Your task to perform on an android device: Open calendar and show me the third week of next month Image 0: 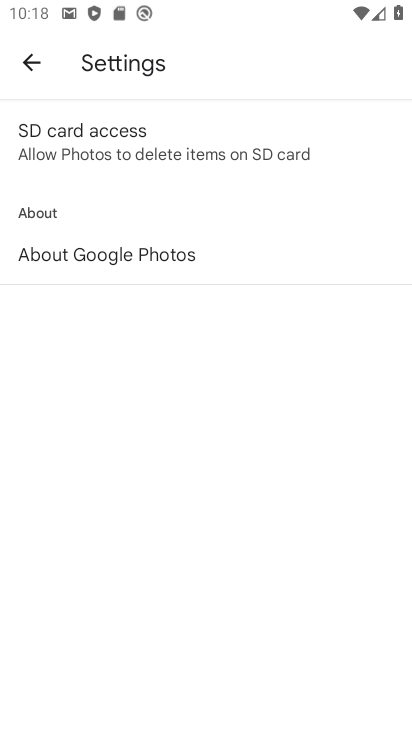
Step 0: press back button
Your task to perform on an android device: Open calendar and show me the third week of next month Image 1: 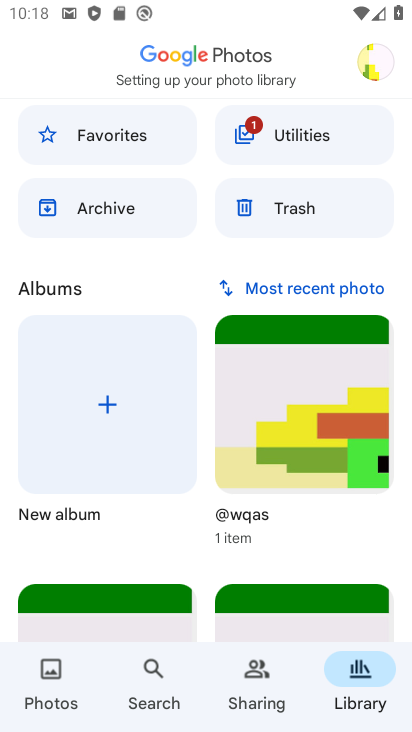
Step 1: press back button
Your task to perform on an android device: Open calendar and show me the third week of next month Image 2: 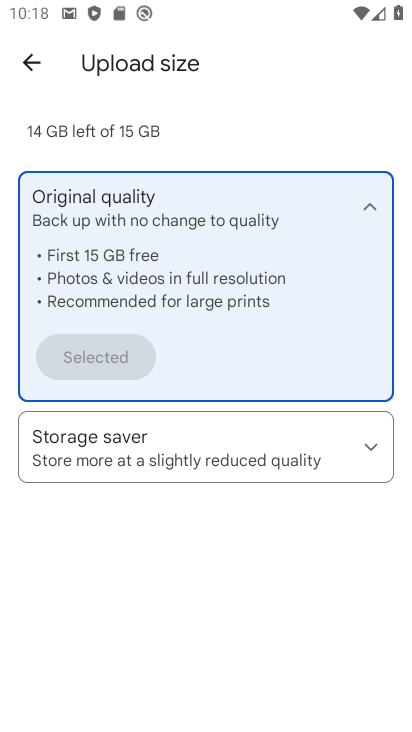
Step 2: press back button
Your task to perform on an android device: Open calendar and show me the third week of next month Image 3: 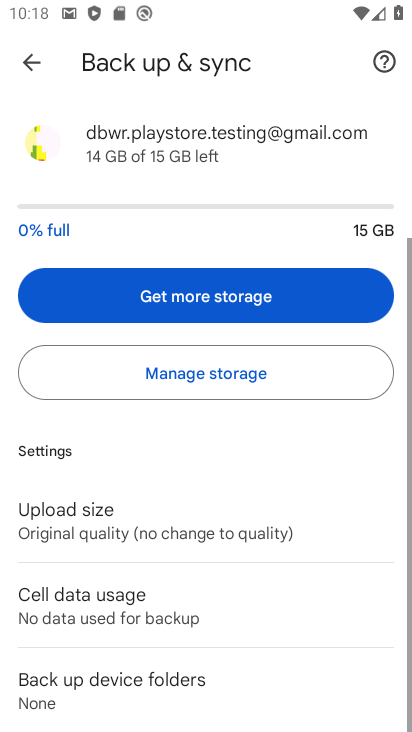
Step 3: press back button
Your task to perform on an android device: Open calendar and show me the third week of next month Image 4: 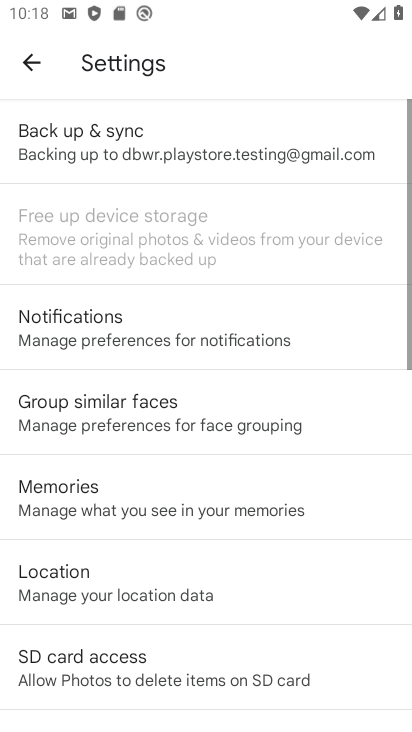
Step 4: press back button
Your task to perform on an android device: Open calendar and show me the third week of next month Image 5: 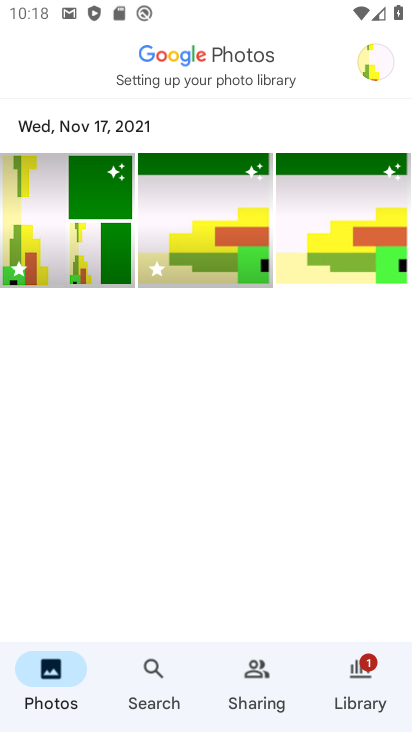
Step 5: press home button
Your task to perform on an android device: Open calendar and show me the third week of next month Image 6: 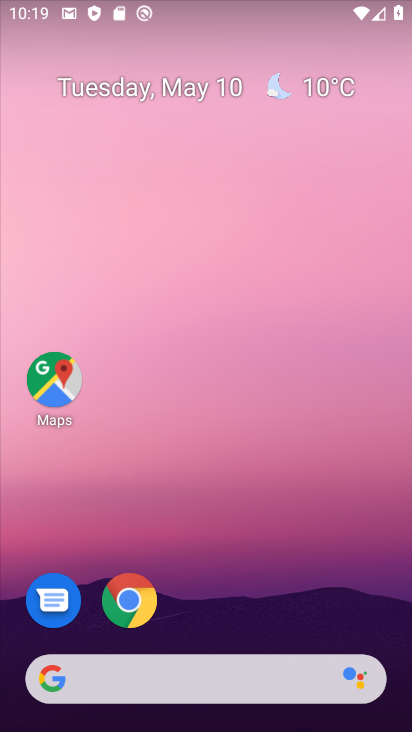
Step 6: drag from (277, 616) to (208, 104)
Your task to perform on an android device: Open calendar and show me the third week of next month Image 7: 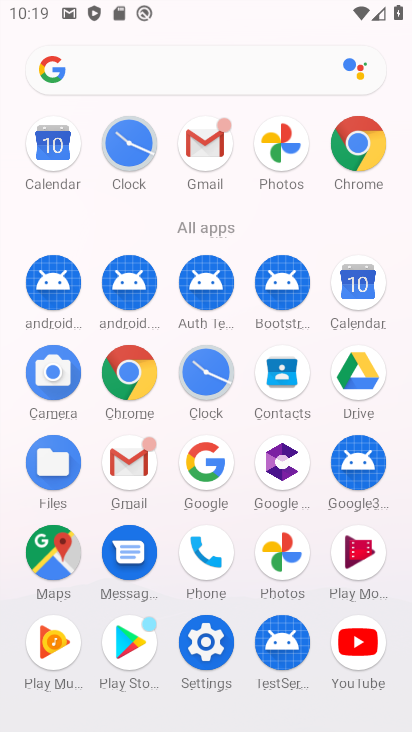
Step 7: click (48, 143)
Your task to perform on an android device: Open calendar and show me the third week of next month Image 8: 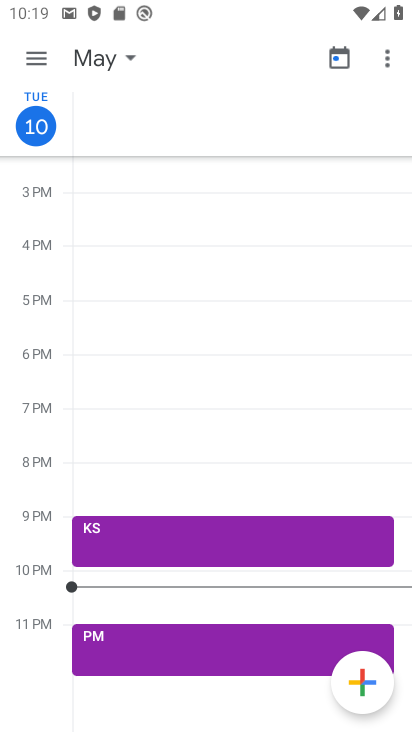
Step 8: drag from (223, 489) to (253, 143)
Your task to perform on an android device: Open calendar and show me the third week of next month Image 9: 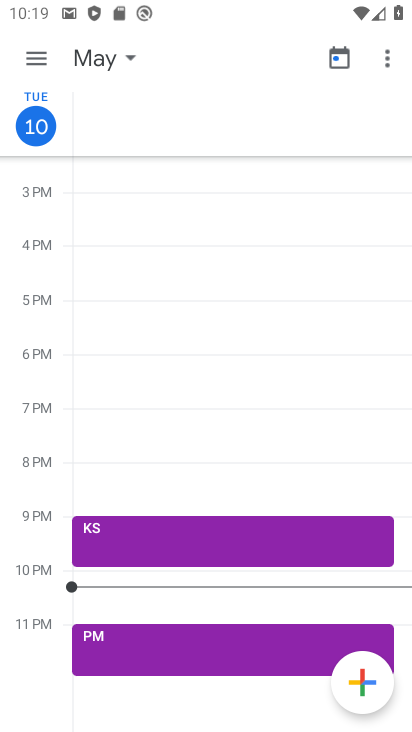
Step 9: click (98, 55)
Your task to perform on an android device: Open calendar and show me the third week of next month Image 10: 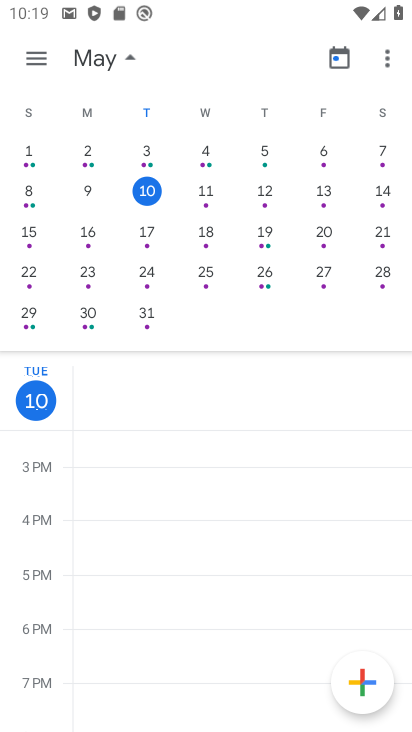
Step 10: drag from (381, 199) to (7, 193)
Your task to perform on an android device: Open calendar and show me the third week of next month Image 11: 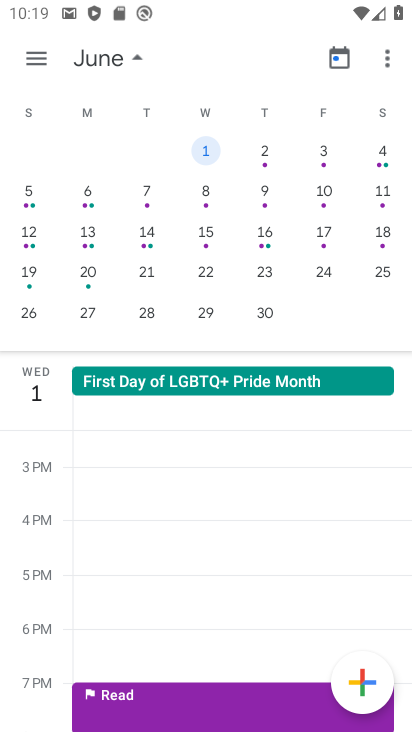
Step 11: click (21, 233)
Your task to perform on an android device: Open calendar and show me the third week of next month Image 12: 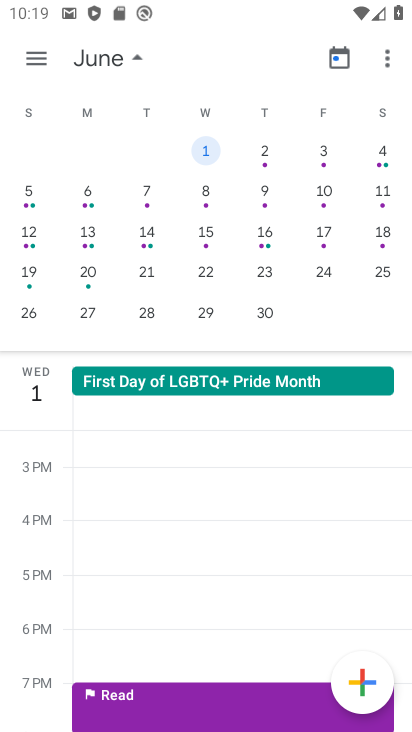
Step 12: click (30, 232)
Your task to perform on an android device: Open calendar and show me the third week of next month Image 13: 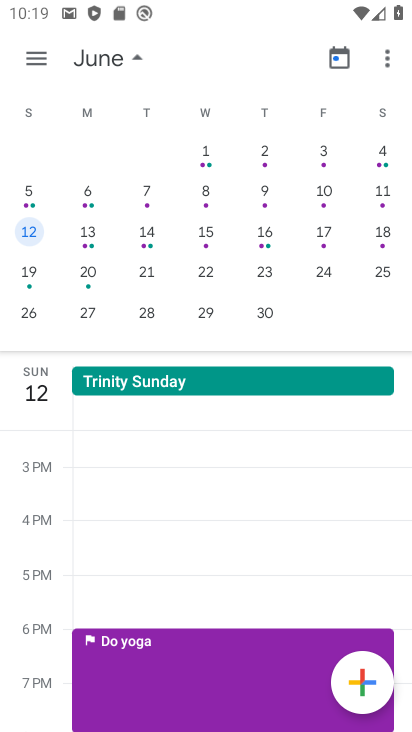
Step 13: click (39, 62)
Your task to perform on an android device: Open calendar and show me the third week of next month Image 14: 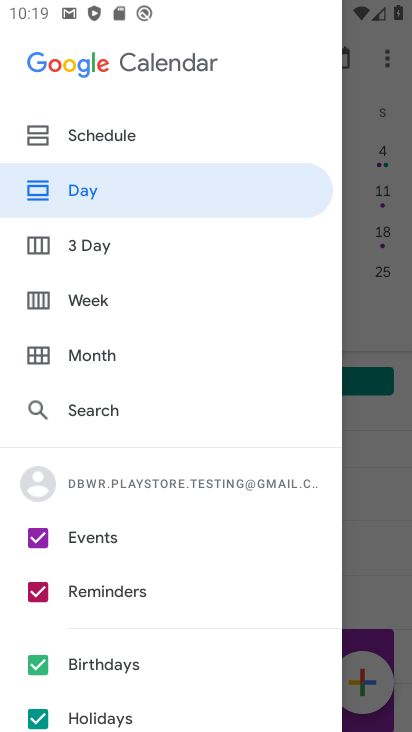
Step 14: click (96, 300)
Your task to perform on an android device: Open calendar and show me the third week of next month Image 15: 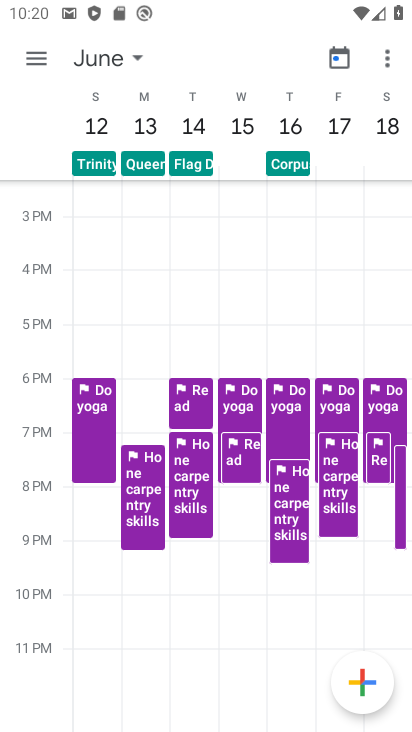
Step 15: task complete